Your task to perform on an android device: open sync settings in chrome Image 0: 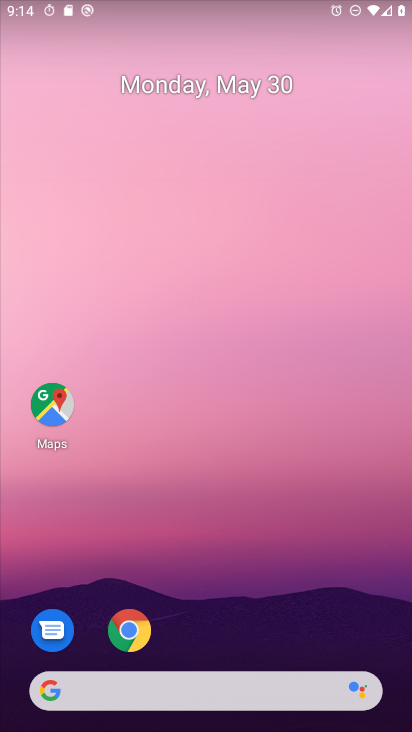
Step 0: drag from (318, 635) to (210, 5)
Your task to perform on an android device: open sync settings in chrome Image 1: 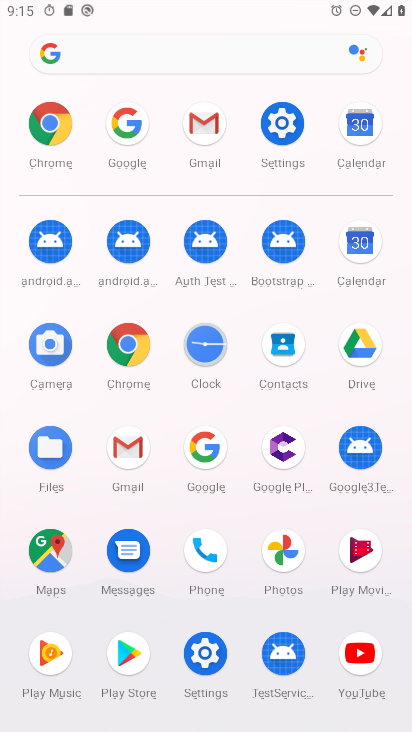
Step 1: click (49, 120)
Your task to perform on an android device: open sync settings in chrome Image 2: 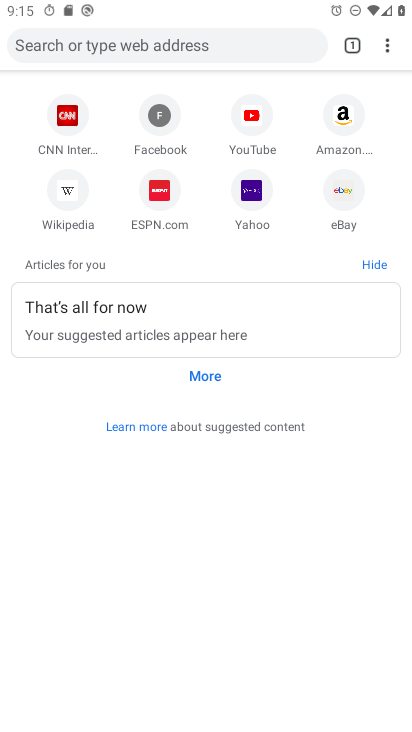
Step 2: click (383, 47)
Your task to perform on an android device: open sync settings in chrome Image 3: 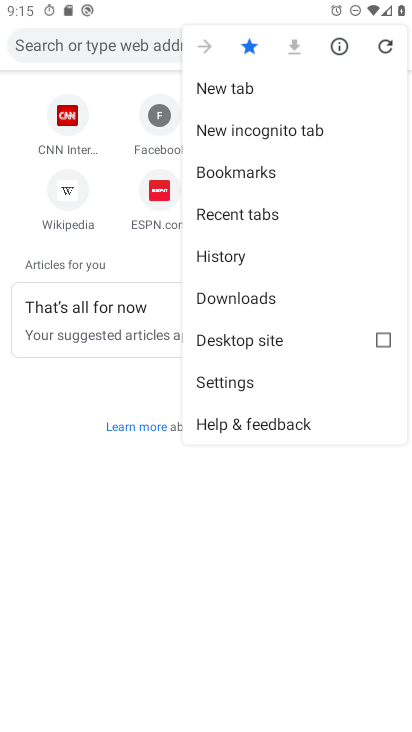
Step 3: click (232, 373)
Your task to perform on an android device: open sync settings in chrome Image 4: 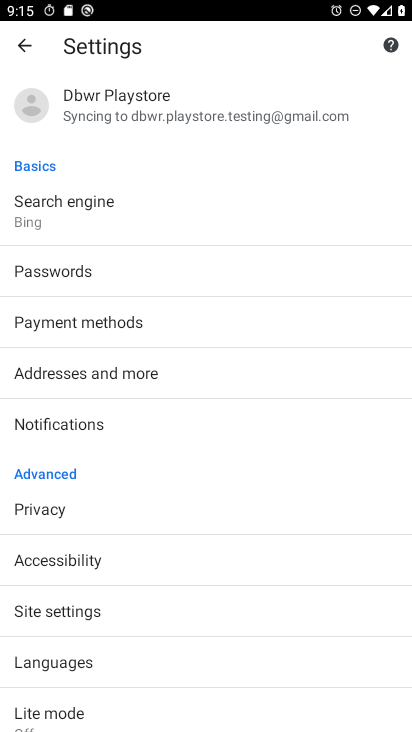
Step 4: click (147, 621)
Your task to perform on an android device: open sync settings in chrome Image 5: 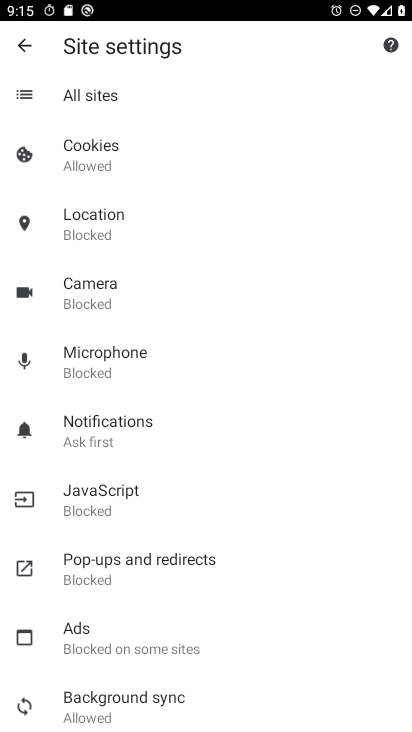
Step 5: drag from (138, 686) to (172, 464)
Your task to perform on an android device: open sync settings in chrome Image 6: 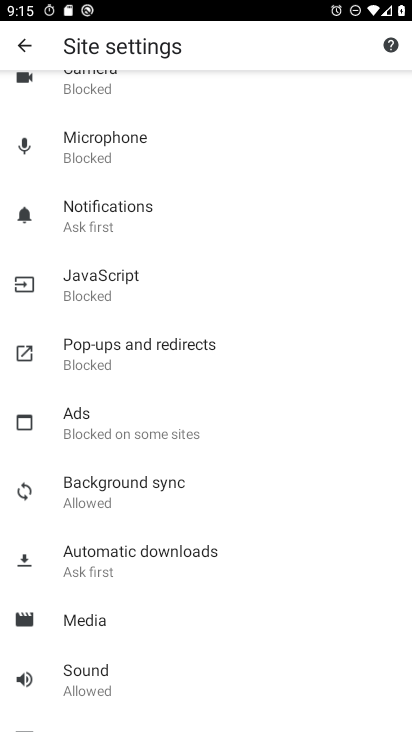
Step 6: click (146, 492)
Your task to perform on an android device: open sync settings in chrome Image 7: 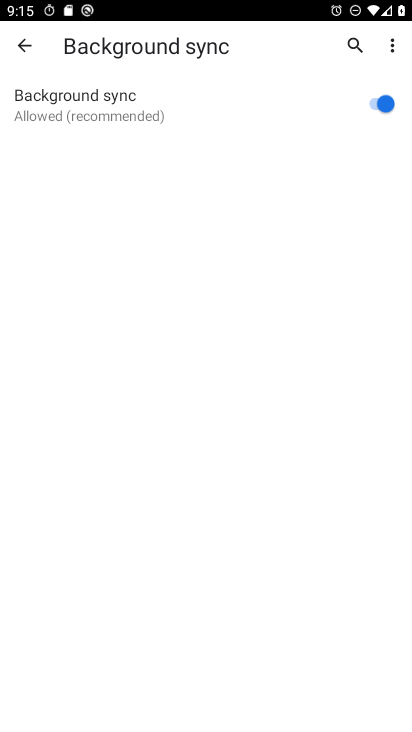
Step 7: task complete